Your task to perform on an android device: turn on data saver in the chrome app Image 0: 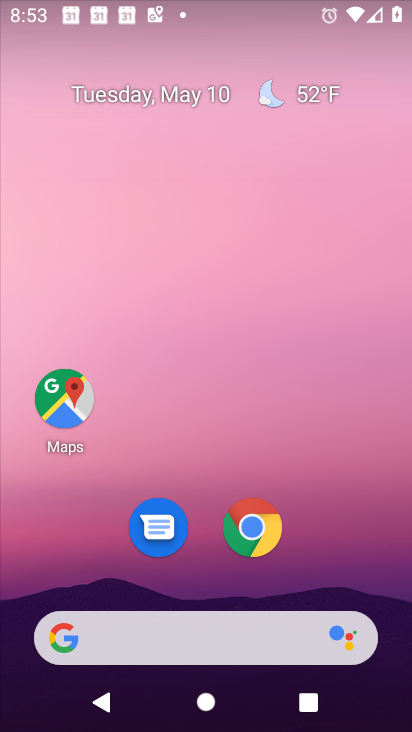
Step 0: click (251, 524)
Your task to perform on an android device: turn on data saver in the chrome app Image 1: 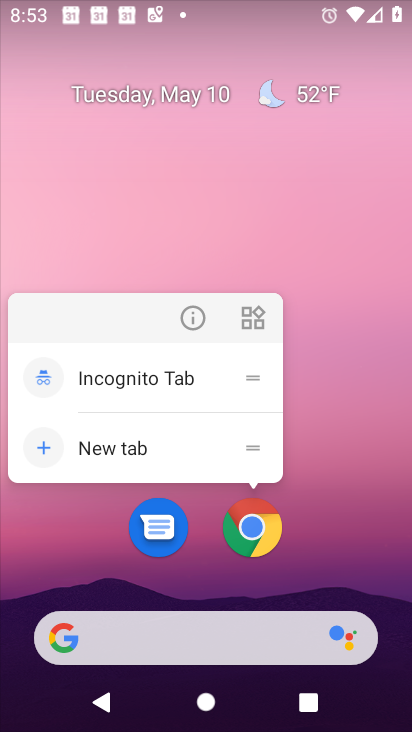
Step 1: click (254, 541)
Your task to perform on an android device: turn on data saver in the chrome app Image 2: 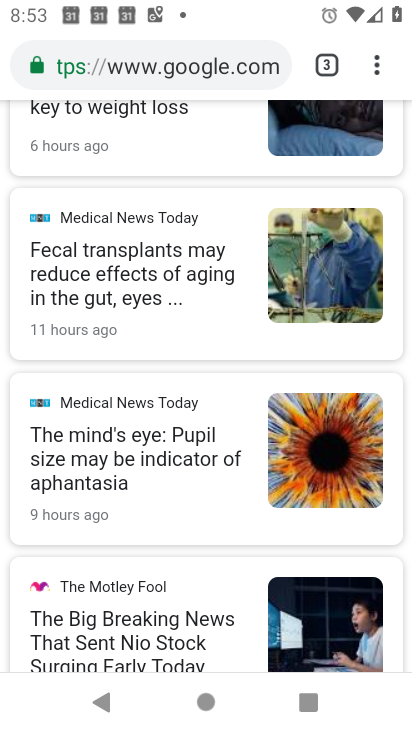
Step 2: click (378, 67)
Your task to perform on an android device: turn on data saver in the chrome app Image 3: 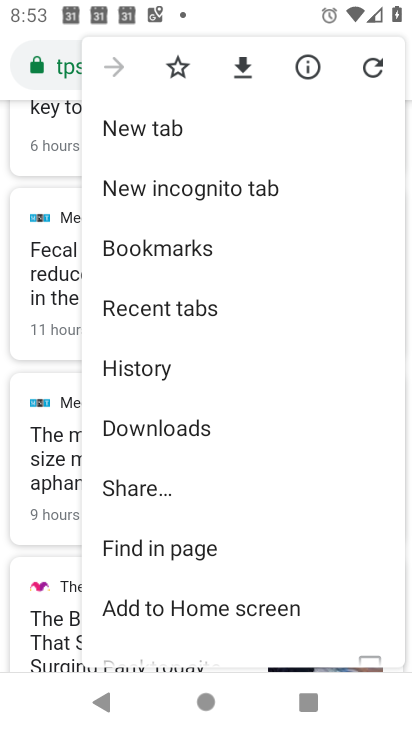
Step 3: drag from (177, 579) to (180, 300)
Your task to perform on an android device: turn on data saver in the chrome app Image 4: 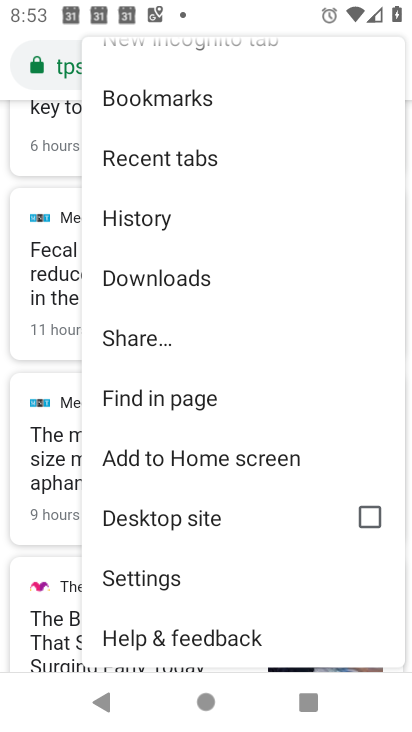
Step 4: click (142, 576)
Your task to perform on an android device: turn on data saver in the chrome app Image 5: 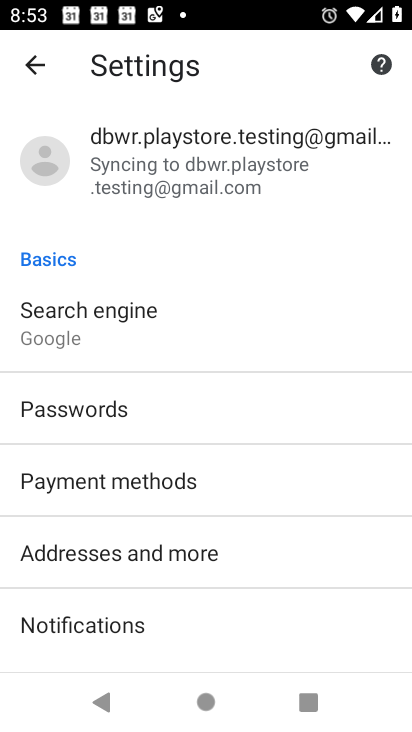
Step 5: drag from (142, 576) to (138, 291)
Your task to perform on an android device: turn on data saver in the chrome app Image 6: 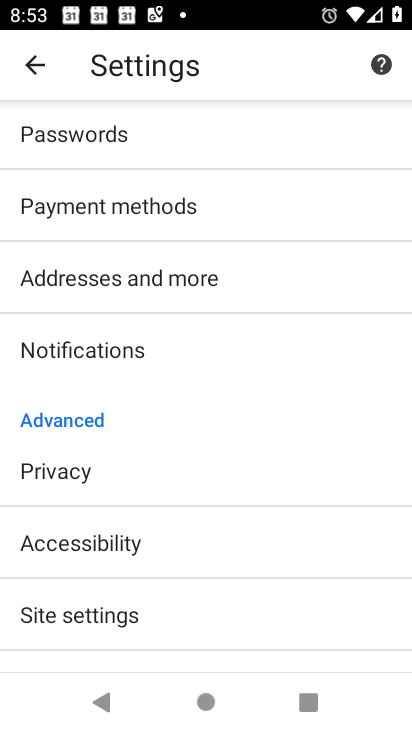
Step 6: drag from (118, 618) to (104, 290)
Your task to perform on an android device: turn on data saver in the chrome app Image 7: 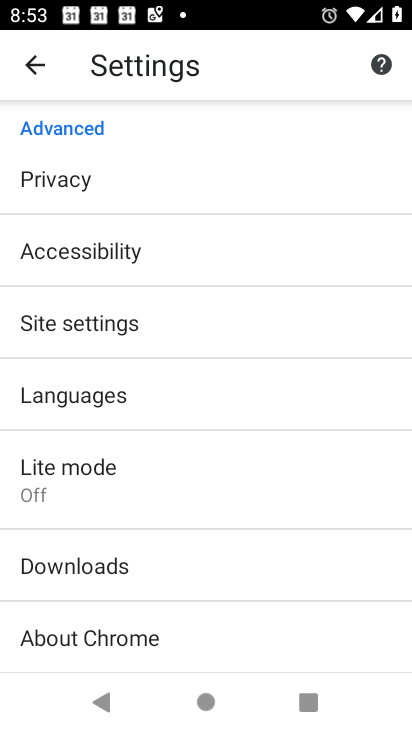
Step 7: click (67, 479)
Your task to perform on an android device: turn on data saver in the chrome app Image 8: 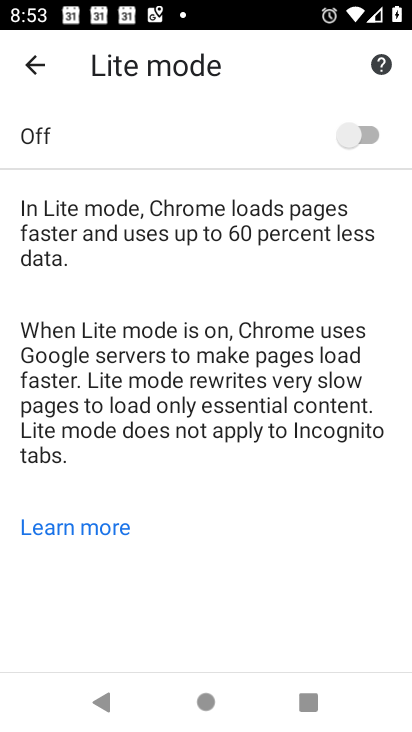
Step 8: click (352, 135)
Your task to perform on an android device: turn on data saver in the chrome app Image 9: 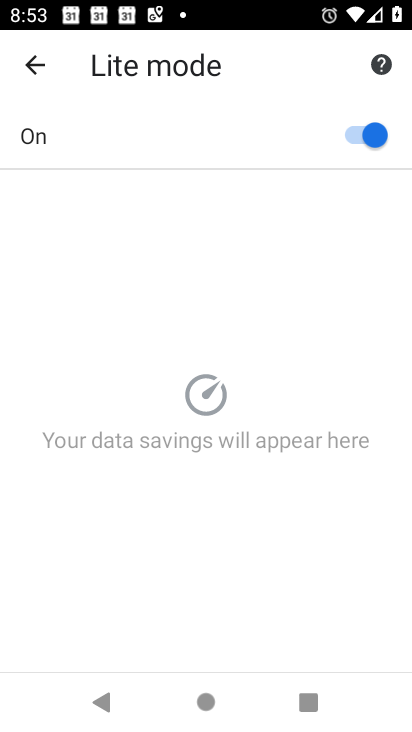
Step 9: task complete